Your task to perform on an android device: How much does the Sony TV cost? Image 0: 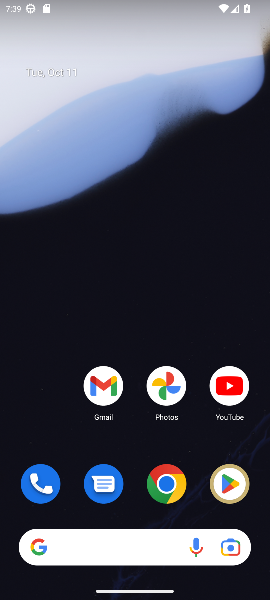
Step 0: click (164, 483)
Your task to perform on an android device: How much does the Sony TV cost? Image 1: 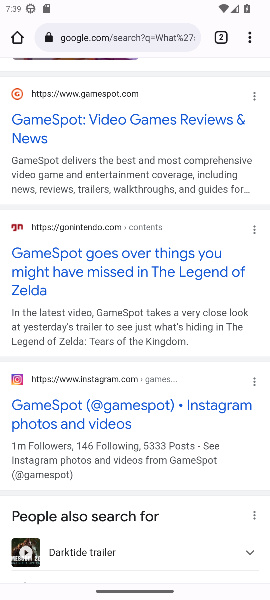
Step 1: click (173, 35)
Your task to perform on an android device: How much does the Sony TV cost? Image 2: 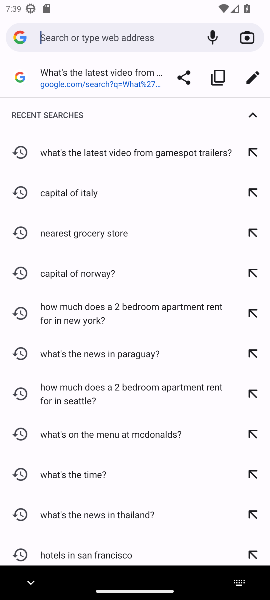
Step 2: type "How much does the sony TV cost?"
Your task to perform on an android device: How much does the Sony TV cost? Image 3: 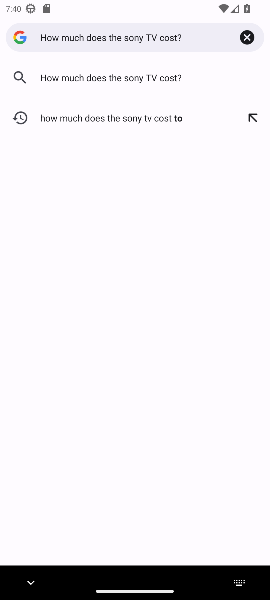
Step 3: click (93, 75)
Your task to perform on an android device: How much does the Sony TV cost? Image 4: 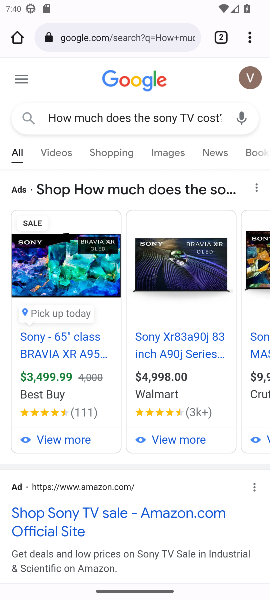
Step 4: task complete